Your task to perform on an android device: Empty the shopping cart on newegg. Search for "energizer triple a" on newegg, select the first entry, and add it to the cart. Image 0: 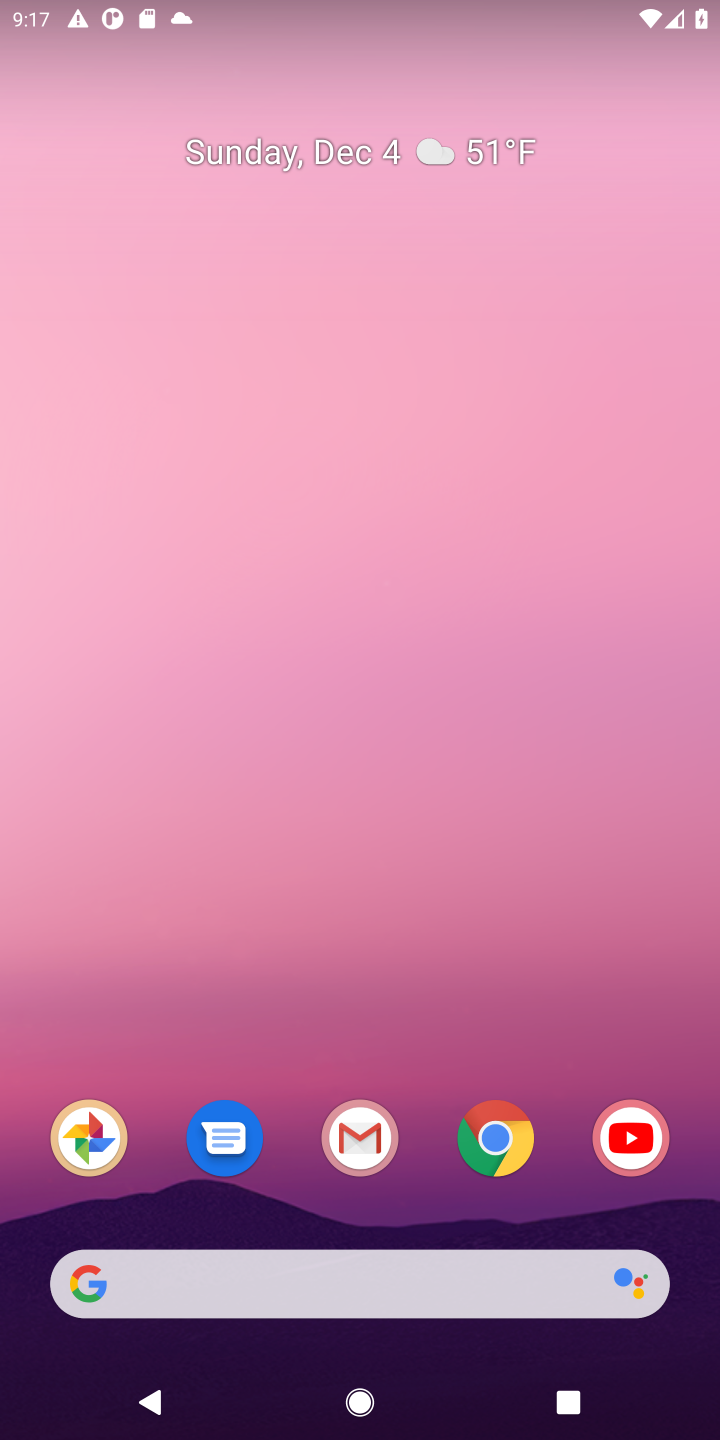
Step 0: click (507, 1125)
Your task to perform on an android device: Empty the shopping cart on newegg. Search for "energizer triple a" on newegg, select the first entry, and add it to the cart. Image 1: 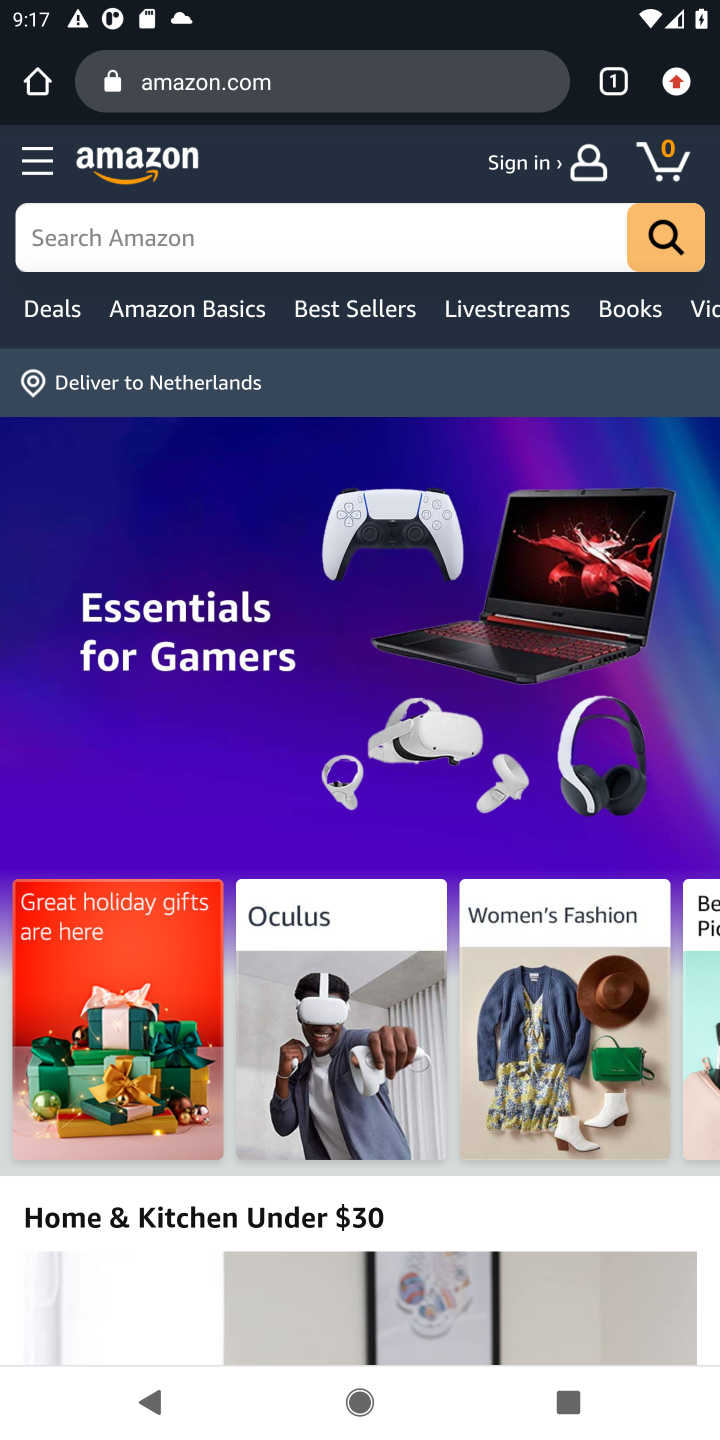
Step 1: click (409, 75)
Your task to perform on an android device: Empty the shopping cart on newegg. Search for "energizer triple a" on newegg, select the first entry, and add it to the cart. Image 2: 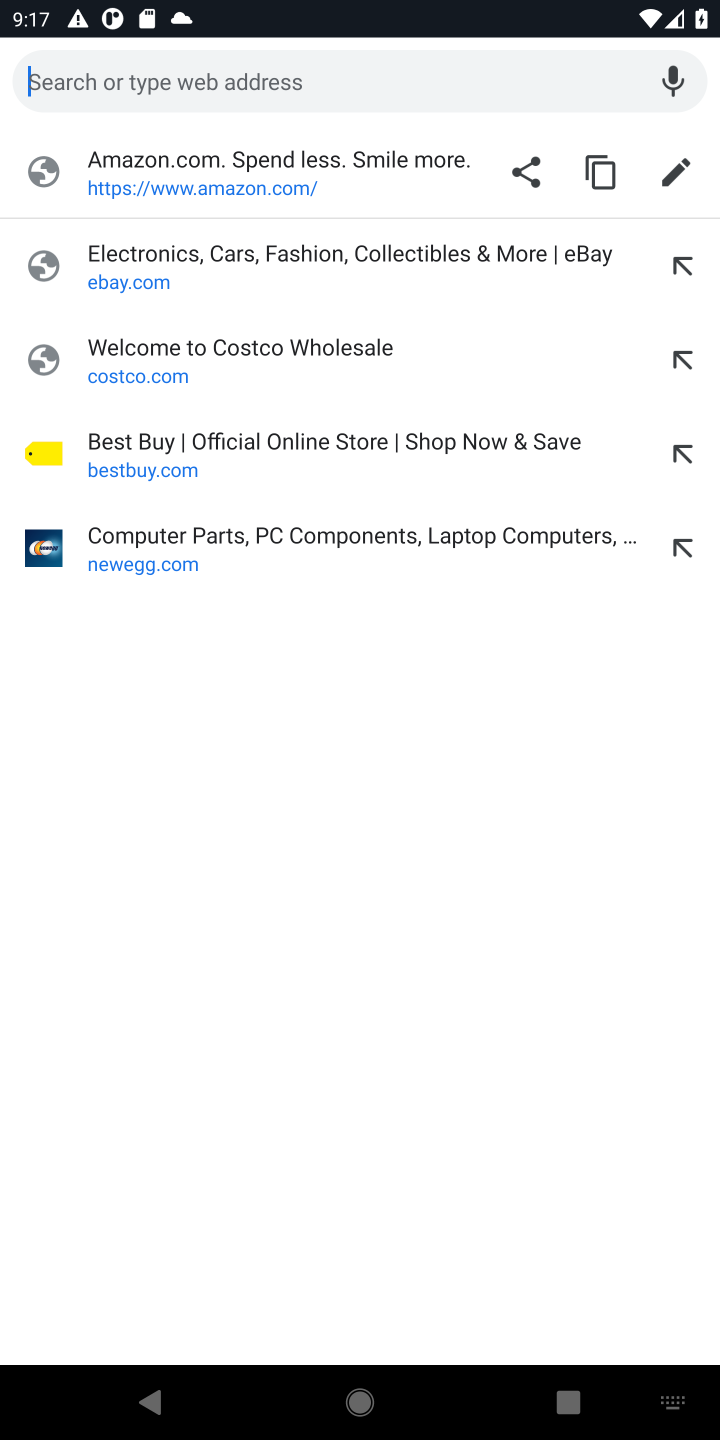
Step 2: type "newegg"
Your task to perform on an android device: Empty the shopping cart on newegg. Search for "energizer triple a" on newegg, select the first entry, and add it to the cart. Image 3: 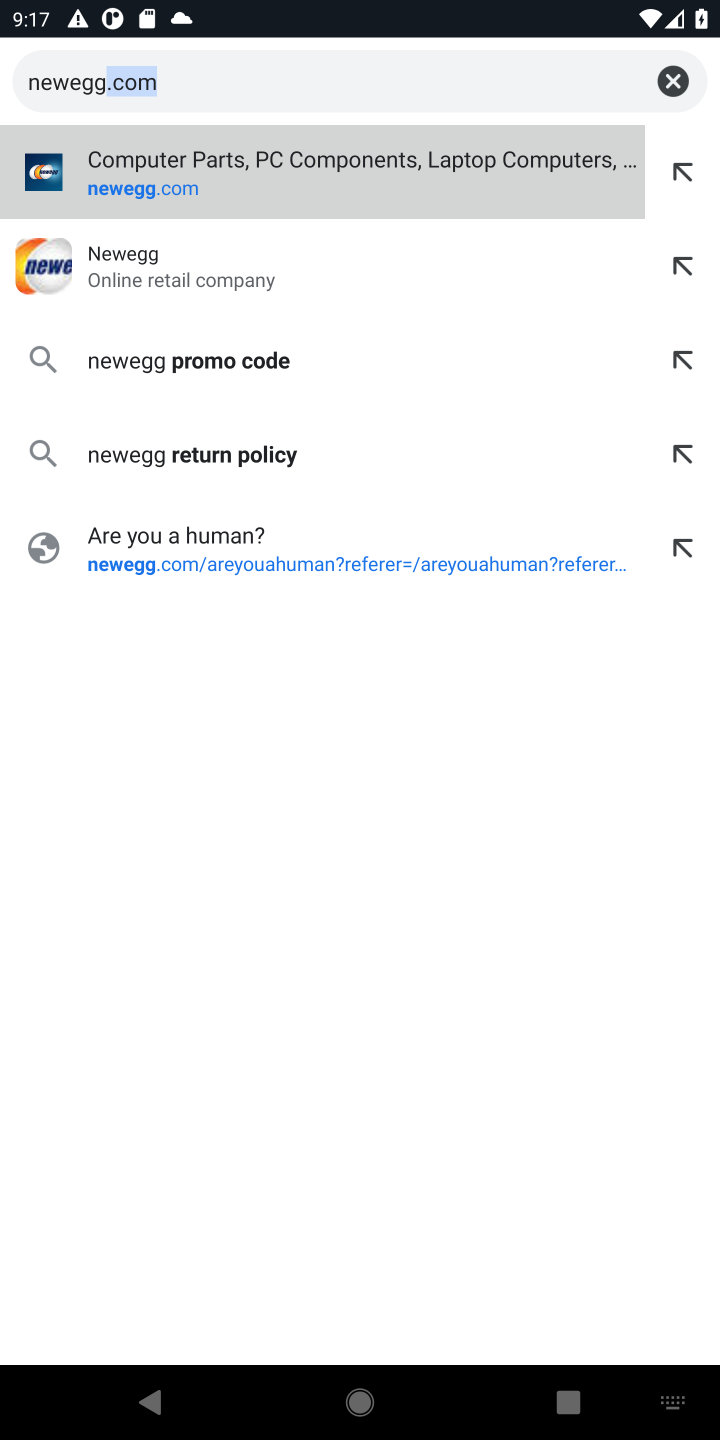
Step 3: press enter
Your task to perform on an android device: Empty the shopping cart on newegg. Search for "energizer triple a" on newegg, select the first entry, and add it to the cart. Image 4: 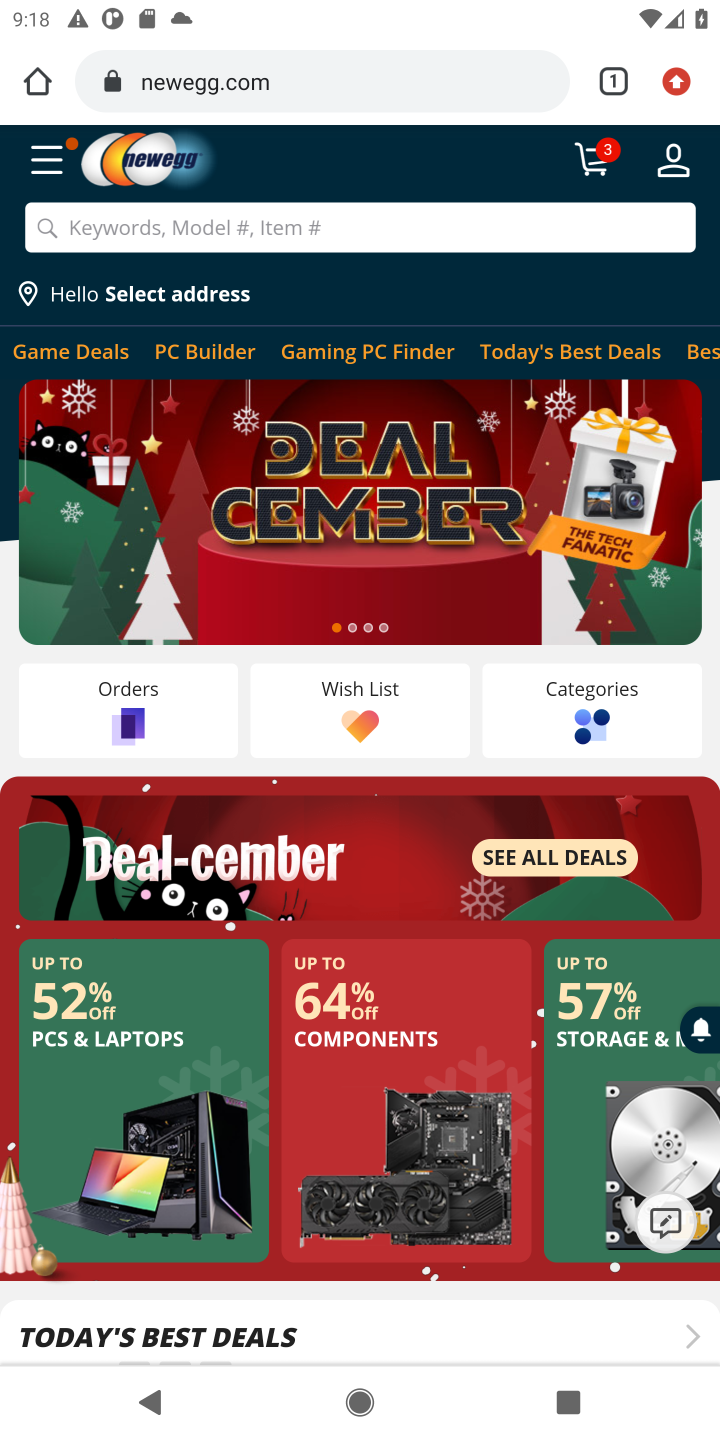
Step 4: click (596, 162)
Your task to perform on an android device: Empty the shopping cart on newegg. Search for "energizer triple a" on newegg, select the first entry, and add it to the cart. Image 5: 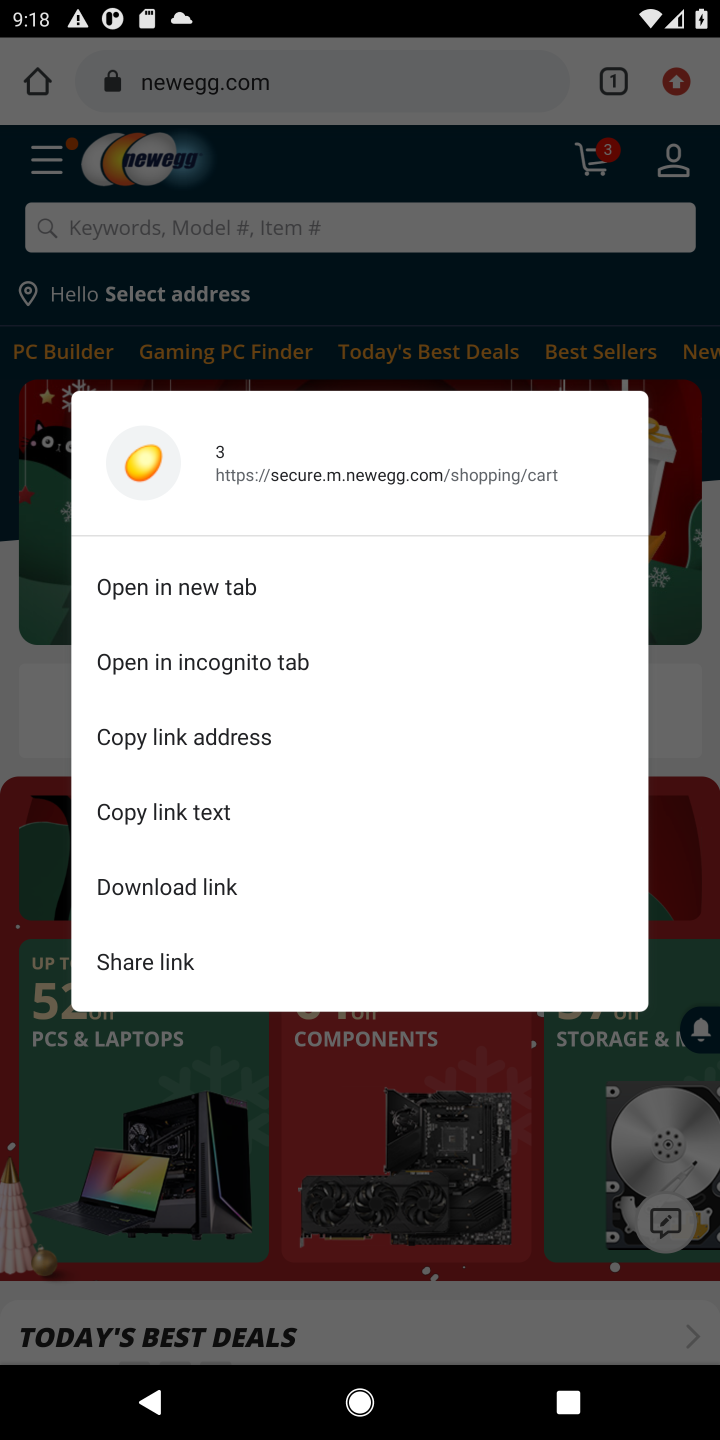
Step 5: click (594, 161)
Your task to perform on an android device: Empty the shopping cart on newegg. Search for "energizer triple a" on newegg, select the first entry, and add it to the cart. Image 6: 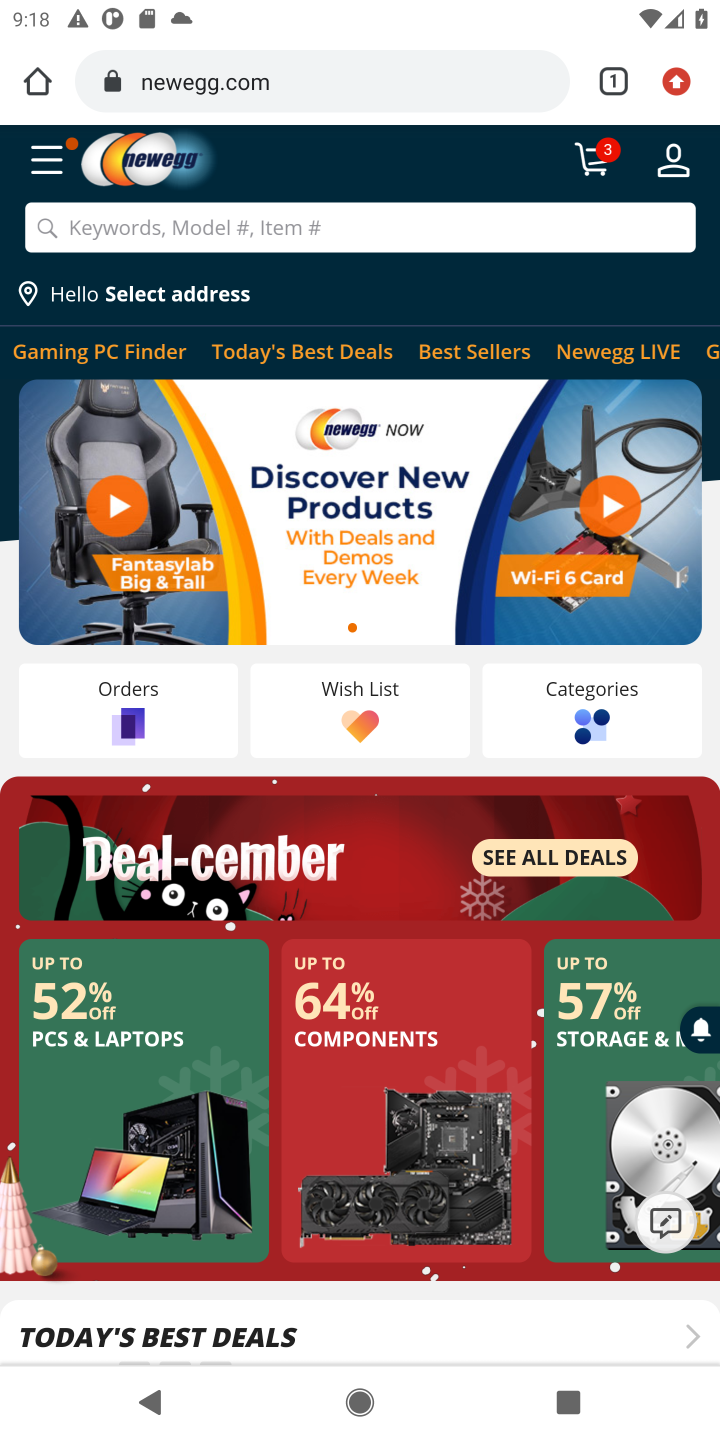
Step 6: click (593, 160)
Your task to perform on an android device: Empty the shopping cart on newegg. Search for "energizer triple a" on newegg, select the first entry, and add it to the cart. Image 7: 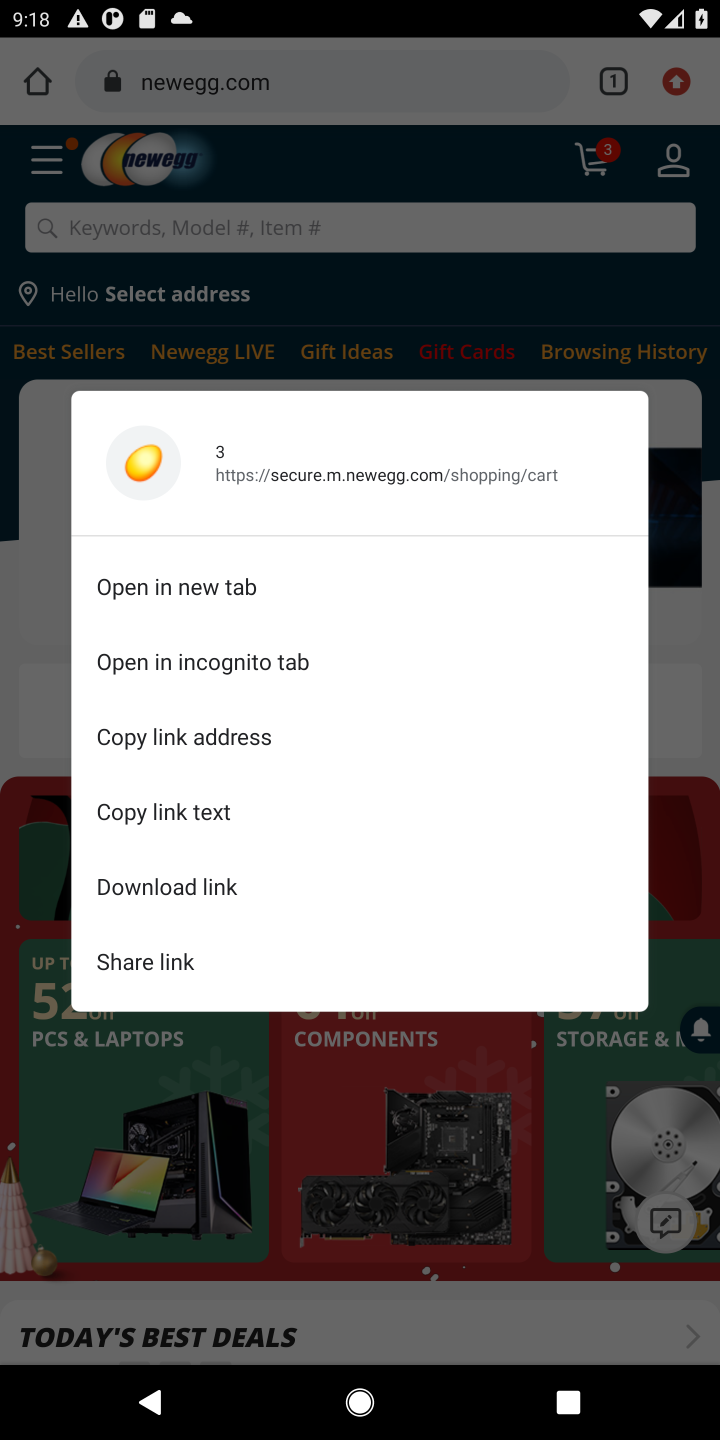
Step 7: click (578, 165)
Your task to perform on an android device: Empty the shopping cart on newegg. Search for "energizer triple a" on newegg, select the first entry, and add it to the cart. Image 8: 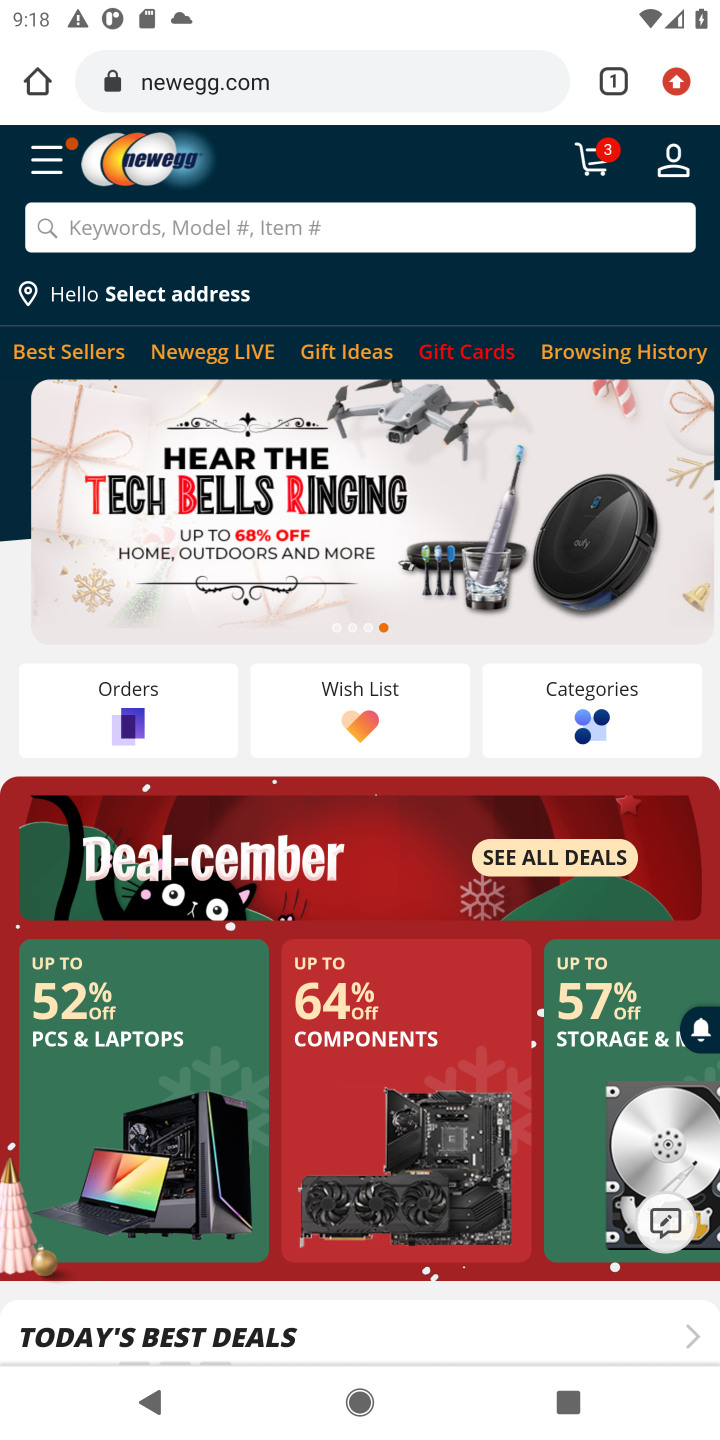
Step 8: click (595, 162)
Your task to perform on an android device: Empty the shopping cart on newegg. Search for "energizer triple a" on newegg, select the first entry, and add it to the cart. Image 9: 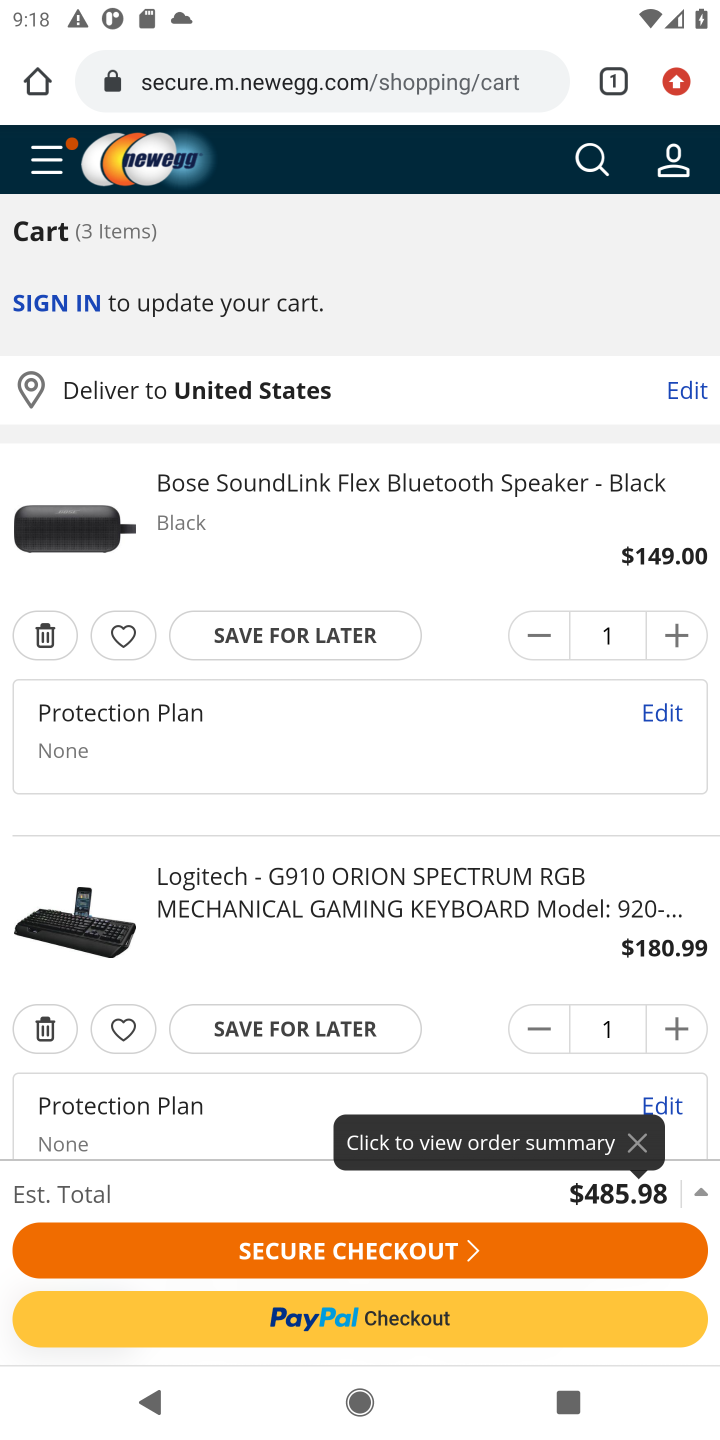
Step 9: click (47, 641)
Your task to perform on an android device: Empty the shopping cart on newegg. Search for "energizer triple a" on newegg, select the first entry, and add it to the cart. Image 10: 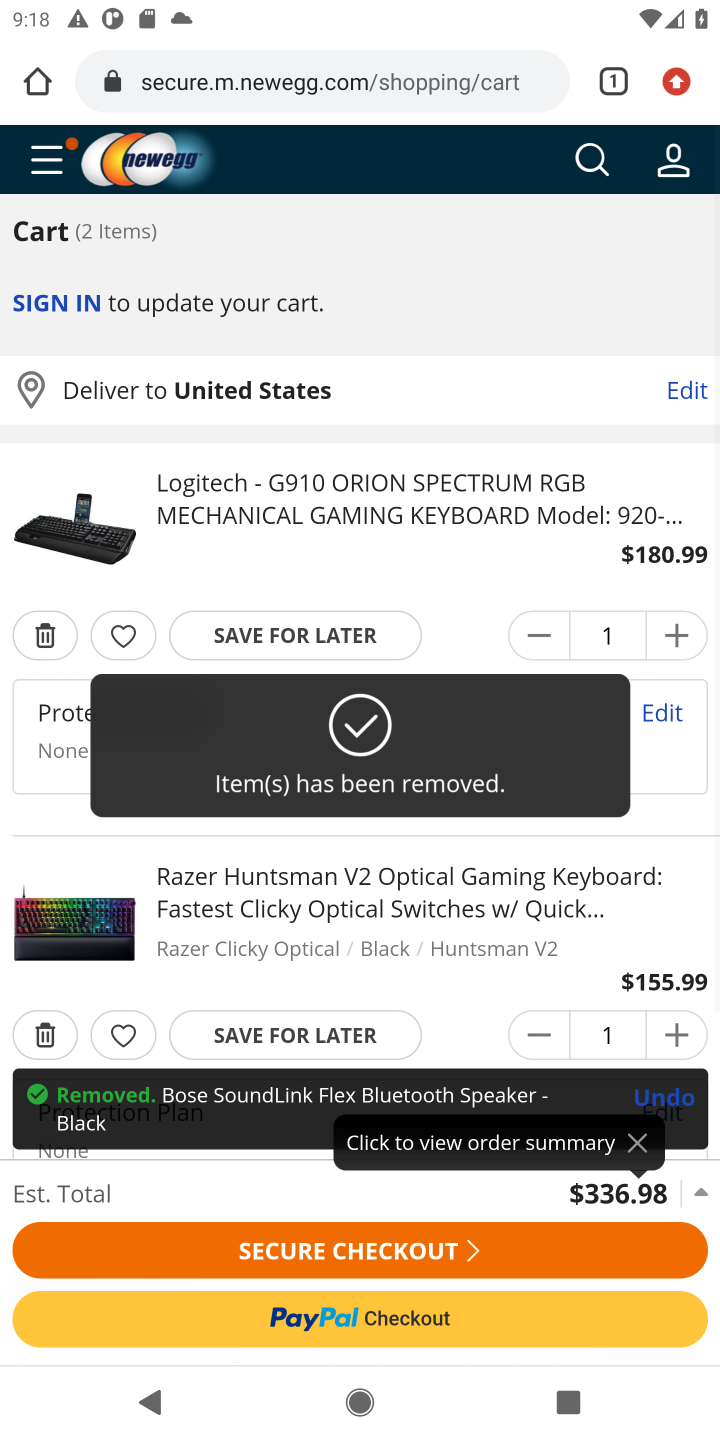
Step 10: click (47, 641)
Your task to perform on an android device: Empty the shopping cart on newegg. Search for "energizer triple a" on newegg, select the first entry, and add it to the cart. Image 11: 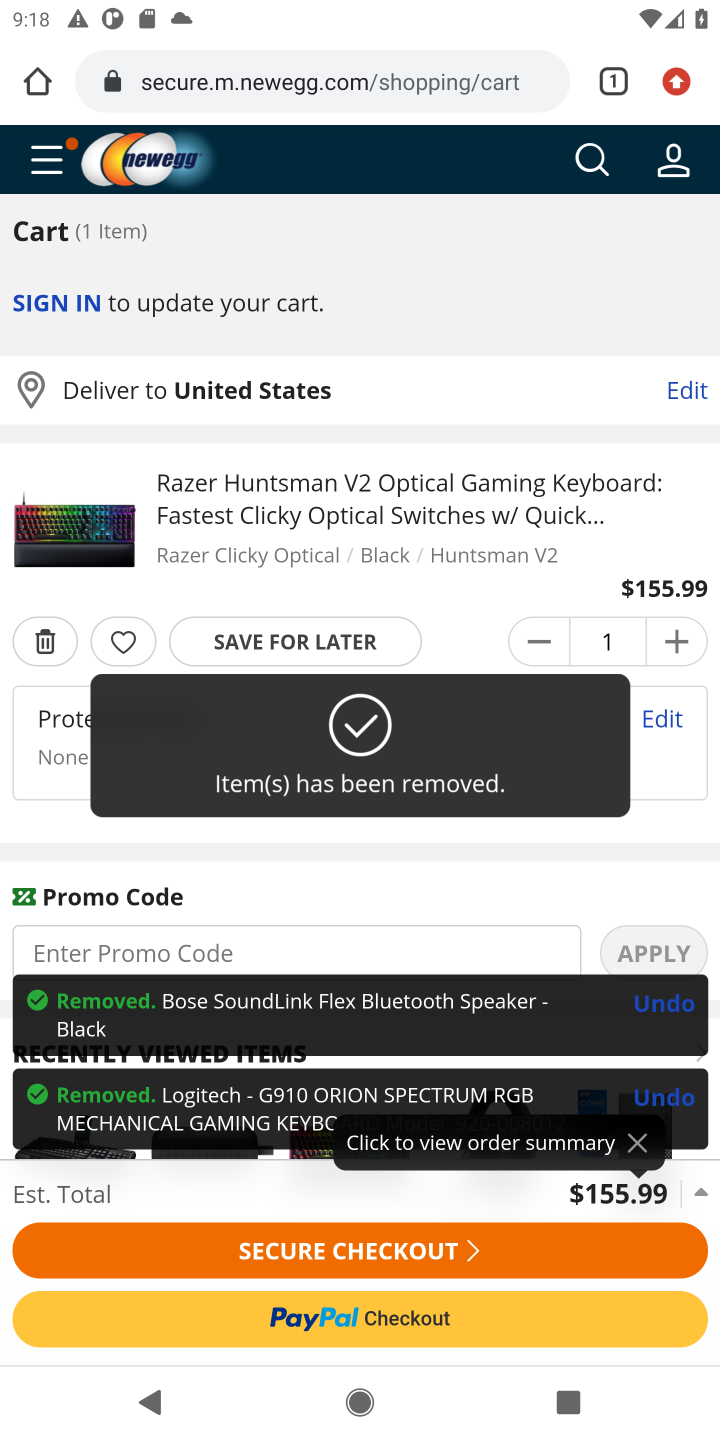
Step 11: click (47, 641)
Your task to perform on an android device: Empty the shopping cart on newegg. Search for "energizer triple a" on newegg, select the first entry, and add it to the cart. Image 12: 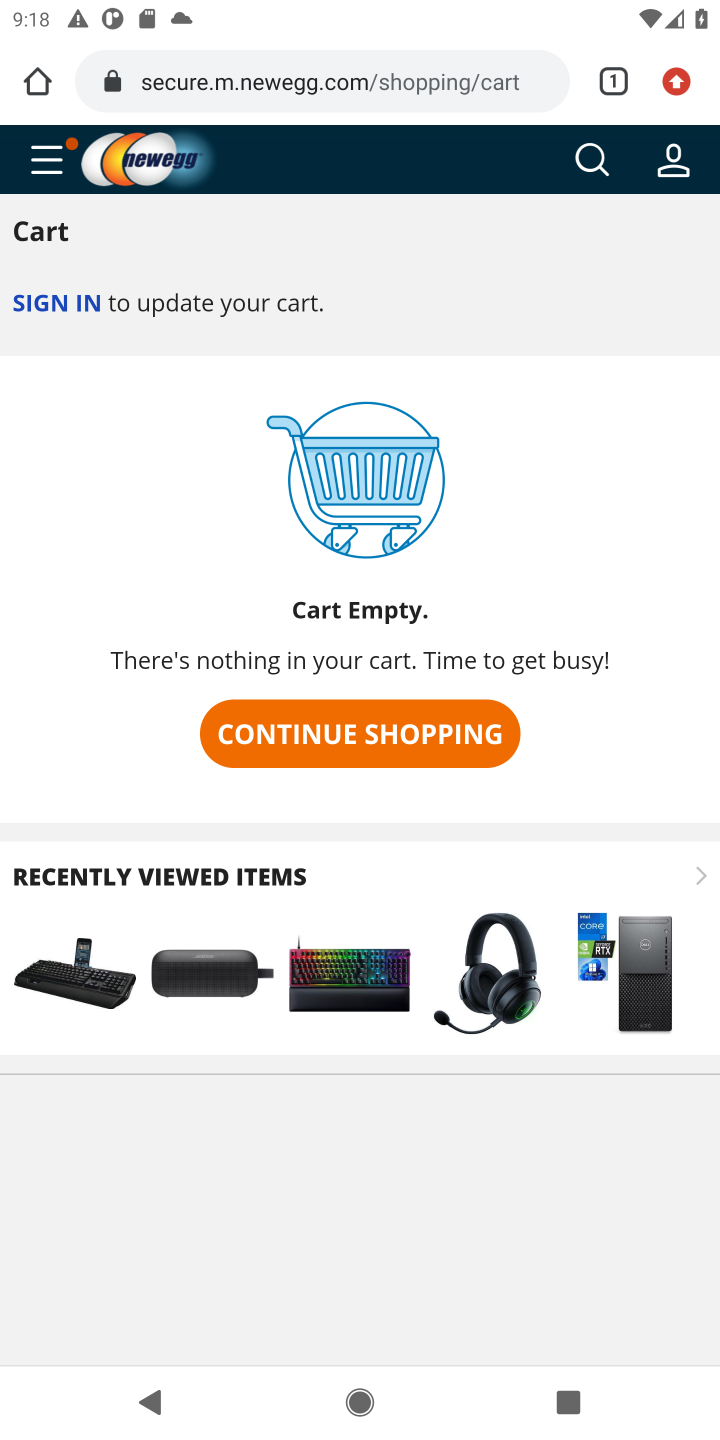
Step 12: click (592, 153)
Your task to perform on an android device: Empty the shopping cart on newegg. Search for "energizer triple a" on newegg, select the first entry, and add it to the cart. Image 13: 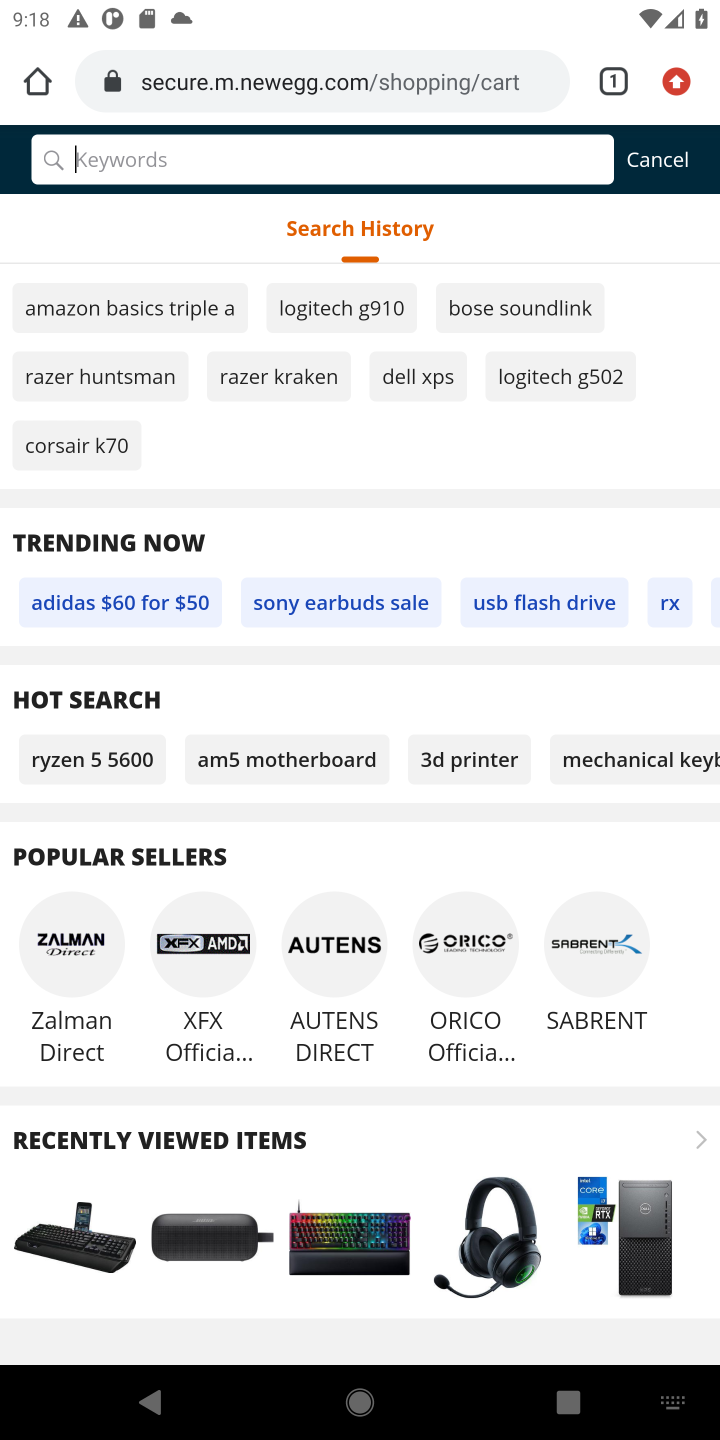
Step 13: click (450, 153)
Your task to perform on an android device: Empty the shopping cart on newegg. Search for "energizer triple a" on newegg, select the first entry, and add it to the cart. Image 14: 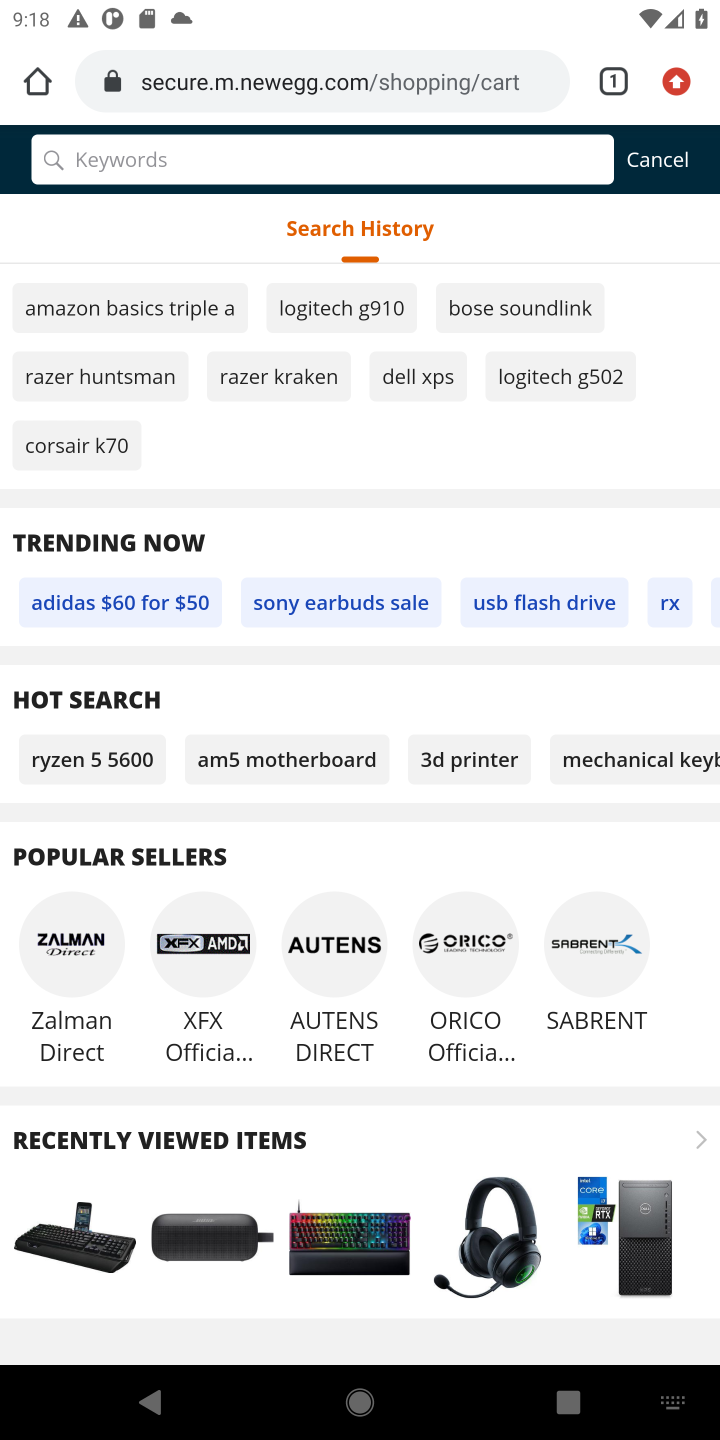
Step 14: type "energizer triple a"
Your task to perform on an android device: Empty the shopping cart on newegg. Search for "energizer triple a" on newegg, select the first entry, and add it to the cart. Image 15: 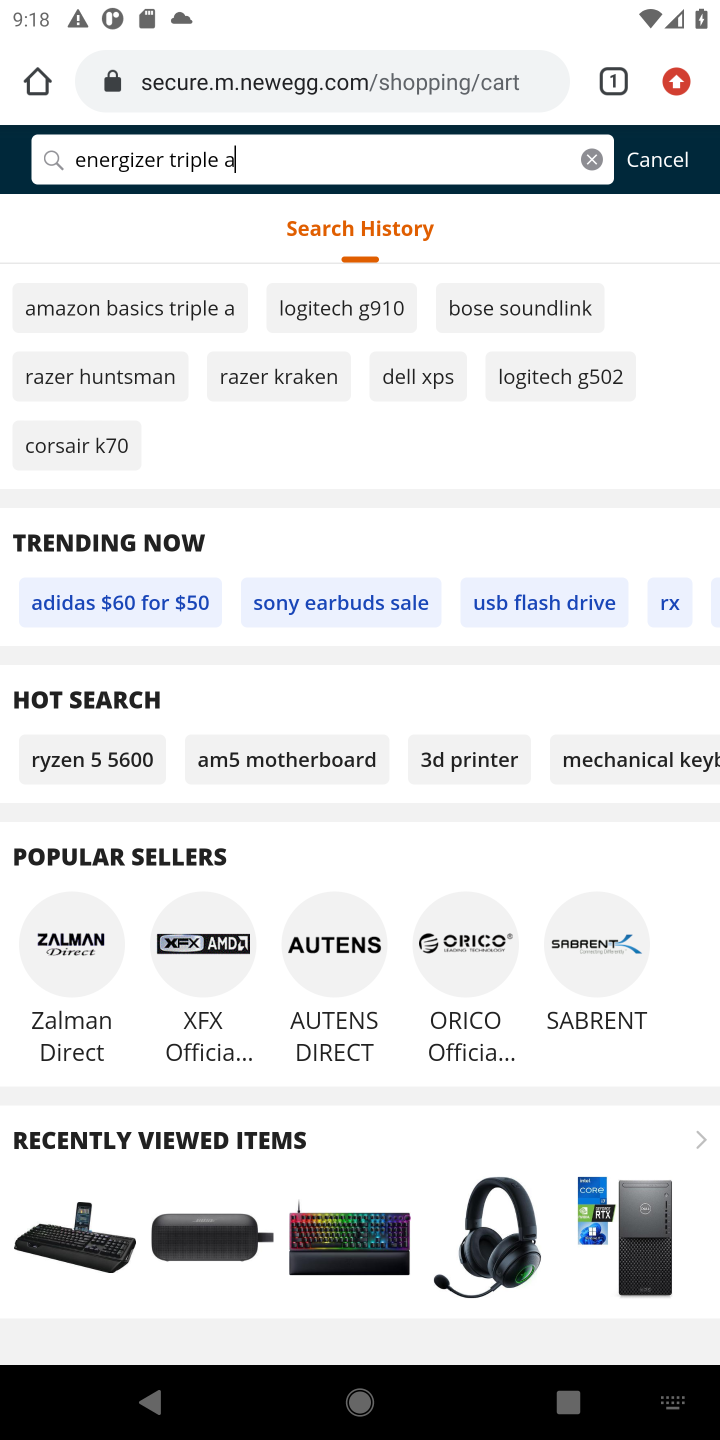
Step 15: press enter
Your task to perform on an android device: Empty the shopping cart on newegg. Search for "energizer triple a" on newegg, select the first entry, and add it to the cart. Image 16: 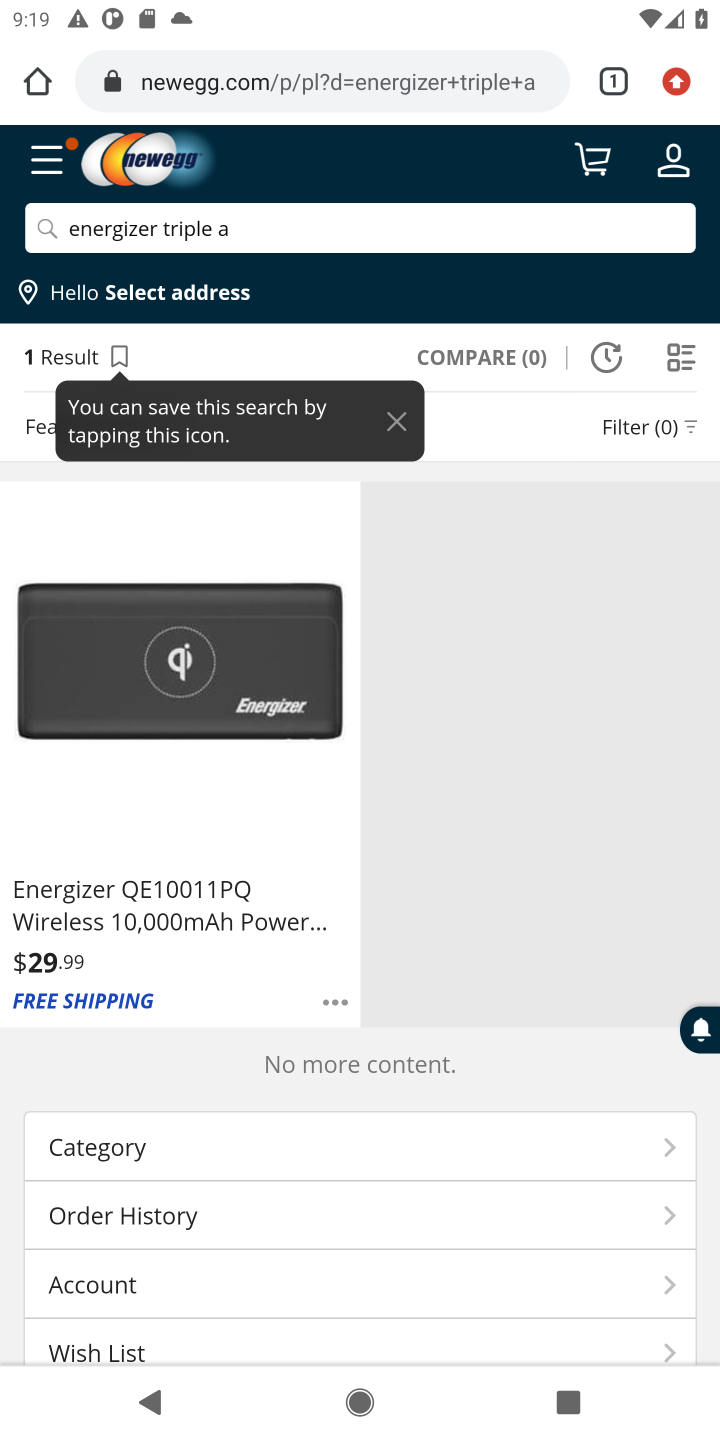
Step 16: click (648, 231)
Your task to perform on an android device: Empty the shopping cart on newegg. Search for "energizer triple a" on newegg, select the first entry, and add it to the cart. Image 17: 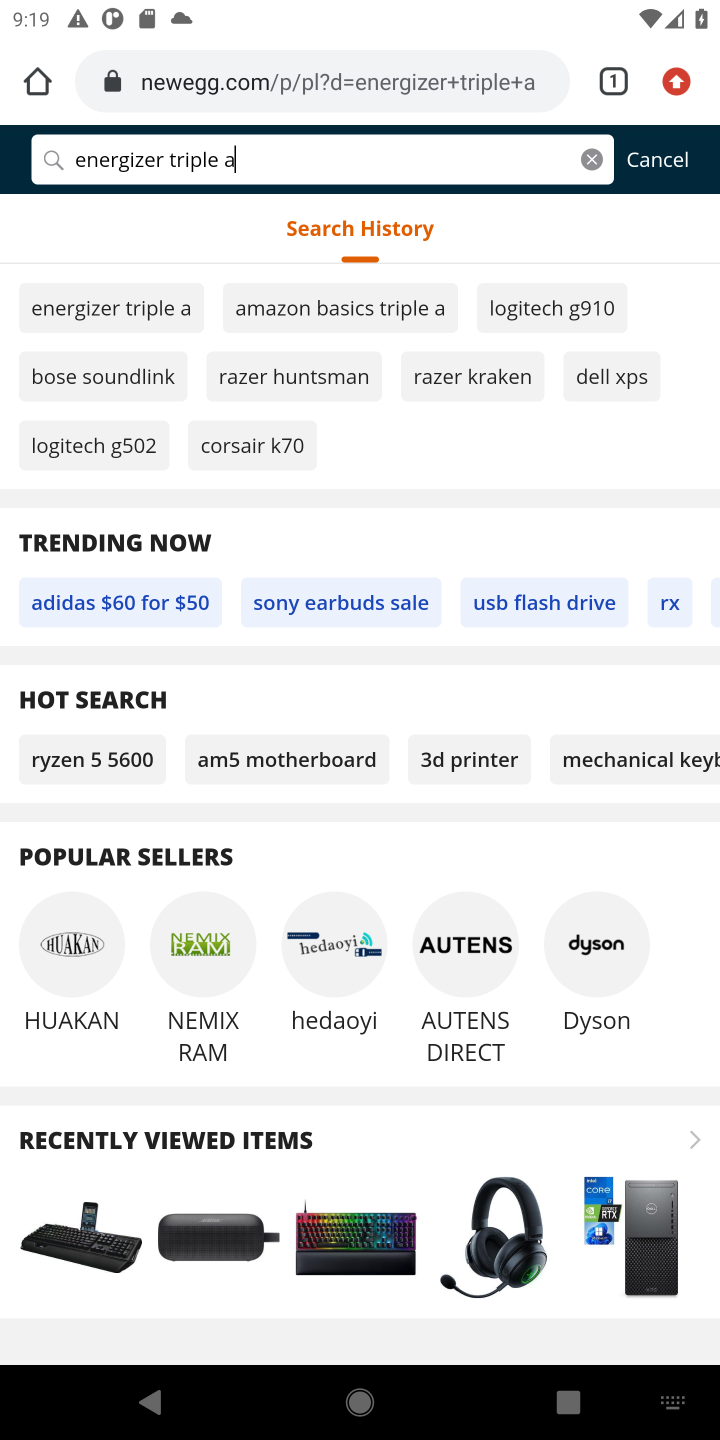
Step 17: click (533, 164)
Your task to perform on an android device: Empty the shopping cart on newegg. Search for "energizer triple a" on newegg, select the first entry, and add it to the cart. Image 18: 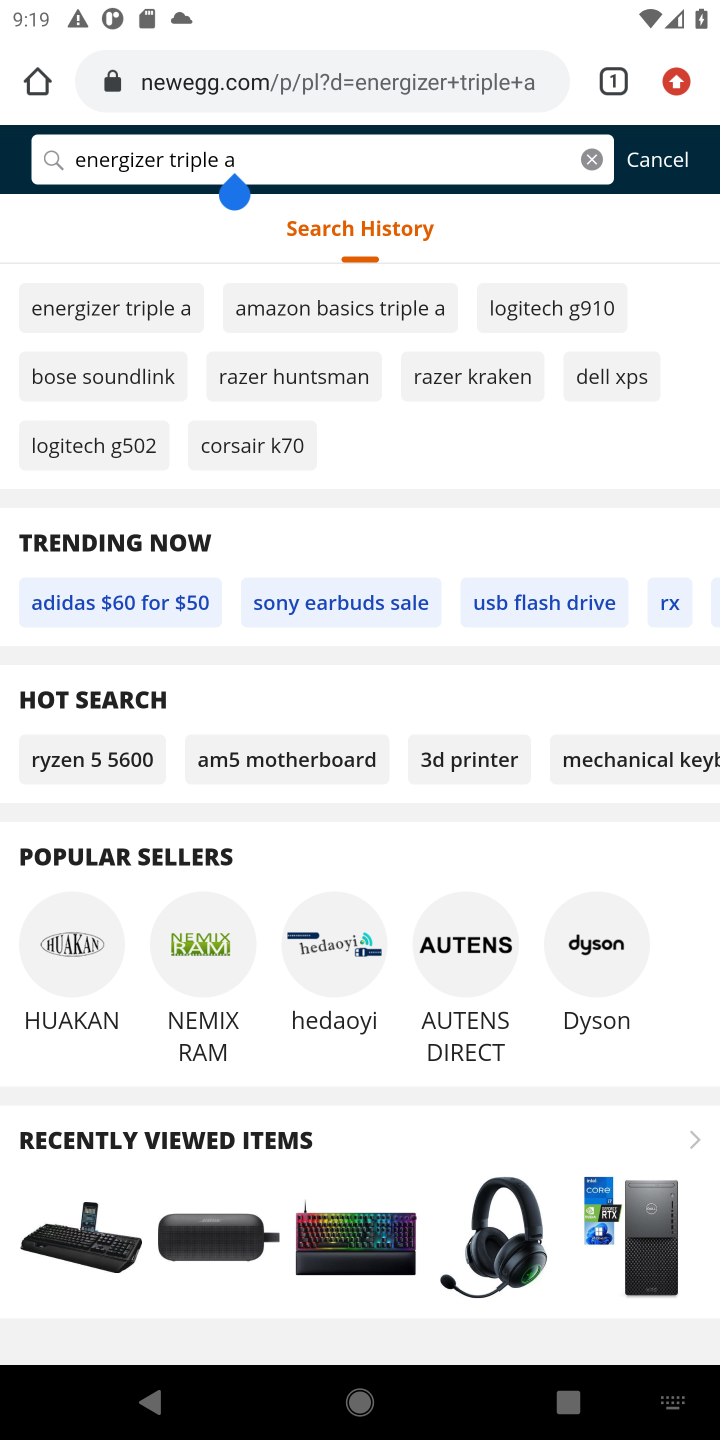
Step 18: press enter
Your task to perform on an android device: Empty the shopping cart on newegg. Search for "energizer triple a" on newegg, select the first entry, and add it to the cart. Image 19: 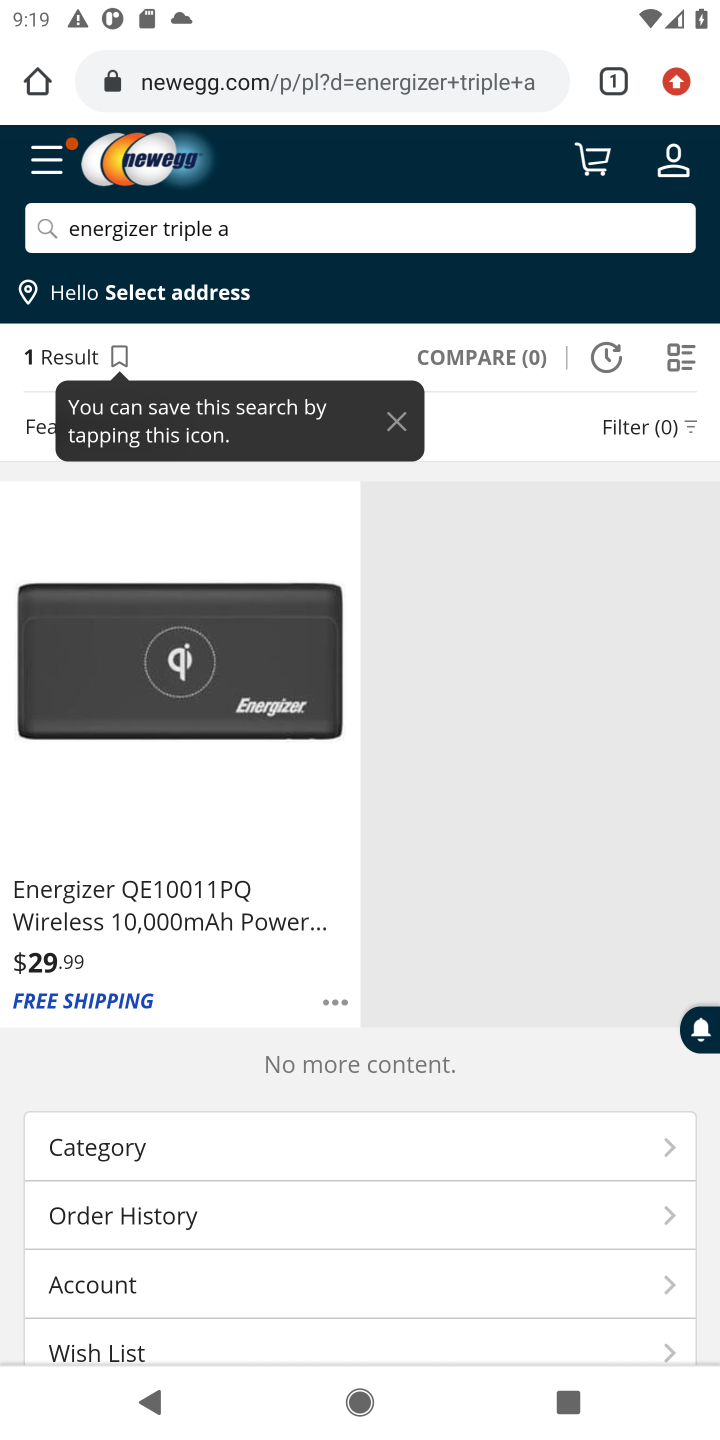
Step 19: task complete